Your task to perform on an android device: Do I have any events tomorrow? Image 0: 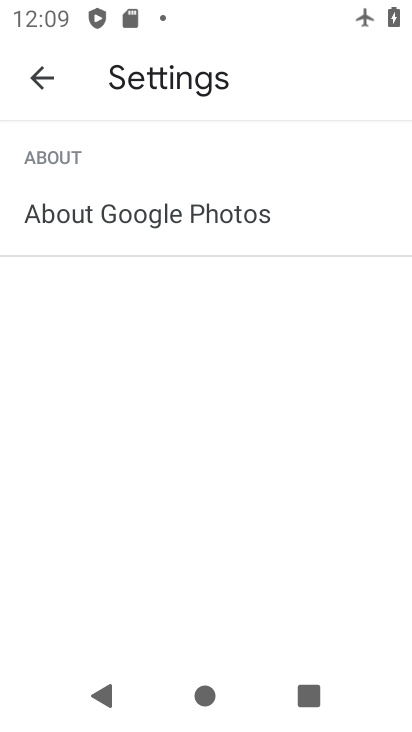
Step 0: press back button
Your task to perform on an android device: Do I have any events tomorrow? Image 1: 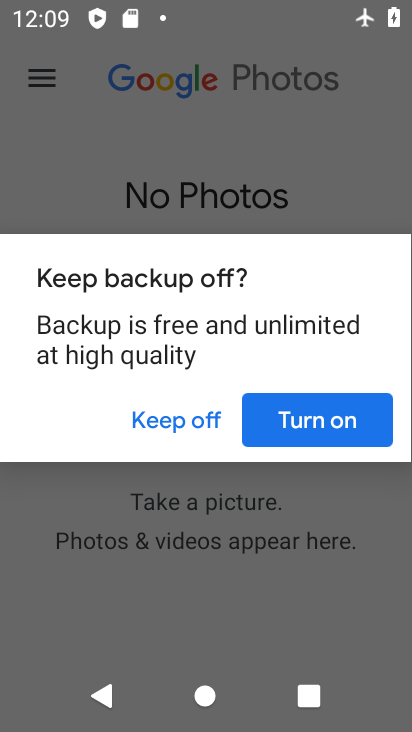
Step 1: press home button
Your task to perform on an android device: Do I have any events tomorrow? Image 2: 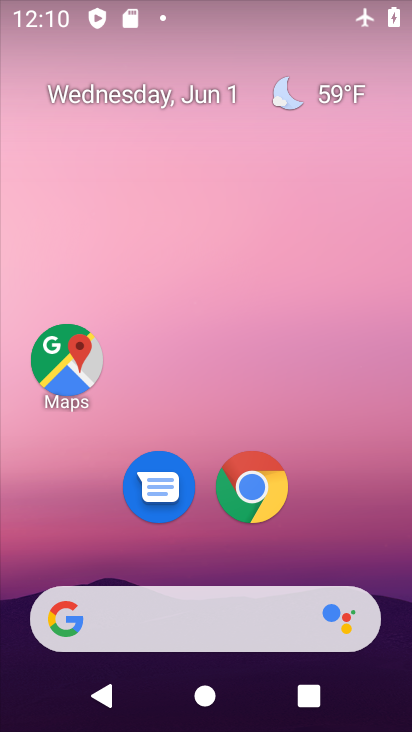
Step 2: drag from (167, 457) to (251, 16)
Your task to perform on an android device: Do I have any events tomorrow? Image 3: 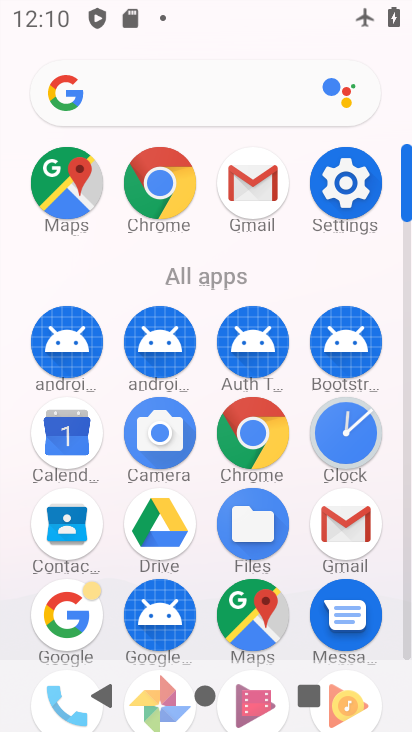
Step 3: drag from (106, 597) to (209, 497)
Your task to perform on an android device: Do I have any events tomorrow? Image 4: 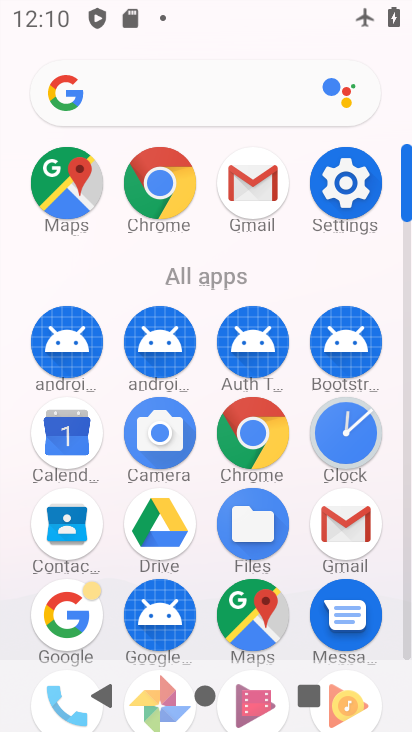
Step 4: click (62, 443)
Your task to perform on an android device: Do I have any events tomorrow? Image 5: 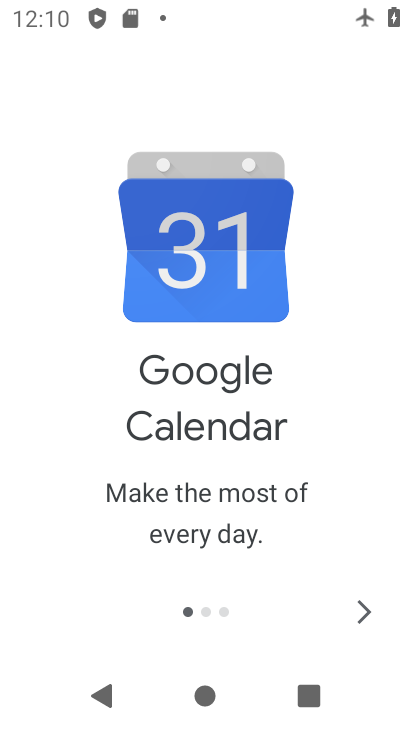
Step 5: click (354, 610)
Your task to perform on an android device: Do I have any events tomorrow? Image 6: 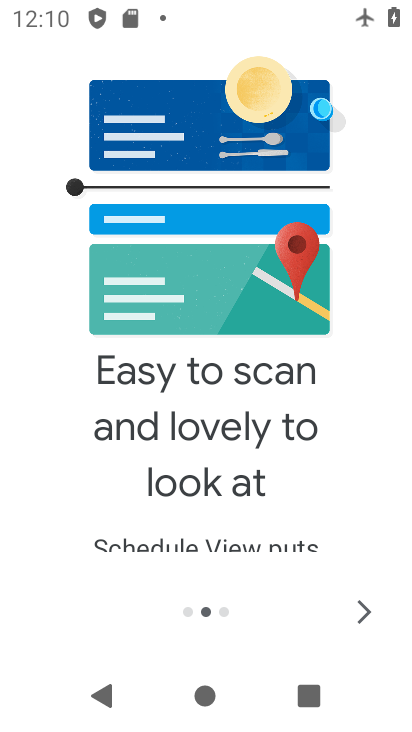
Step 6: click (357, 611)
Your task to perform on an android device: Do I have any events tomorrow? Image 7: 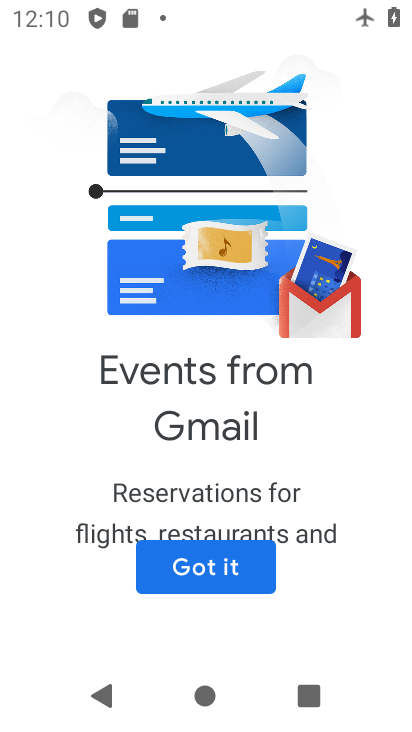
Step 7: click (188, 554)
Your task to perform on an android device: Do I have any events tomorrow? Image 8: 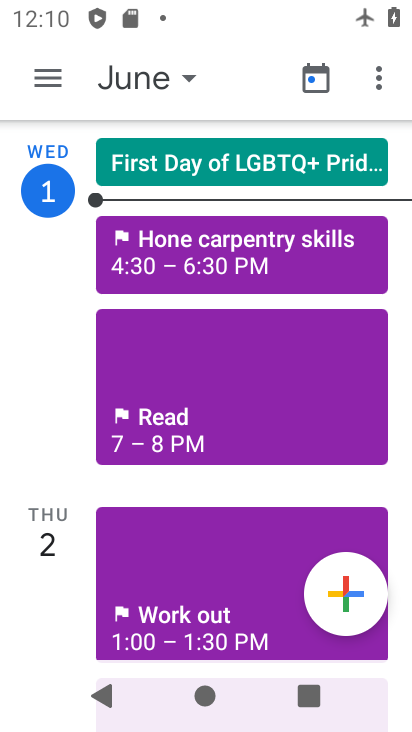
Step 8: drag from (206, 616) to (249, 324)
Your task to perform on an android device: Do I have any events tomorrow? Image 9: 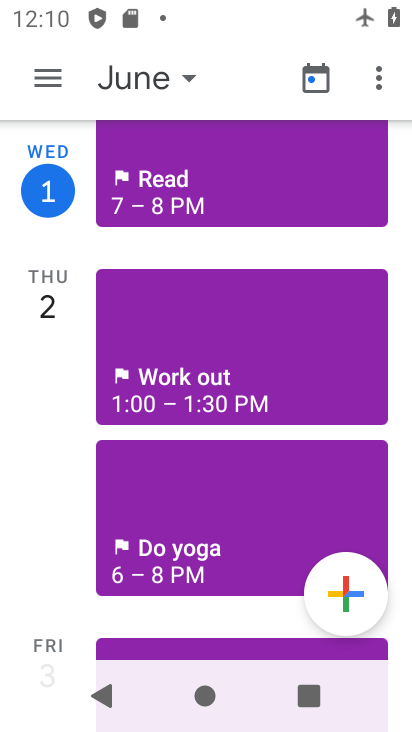
Step 9: click (182, 364)
Your task to perform on an android device: Do I have any events tomorrow? Image 10: 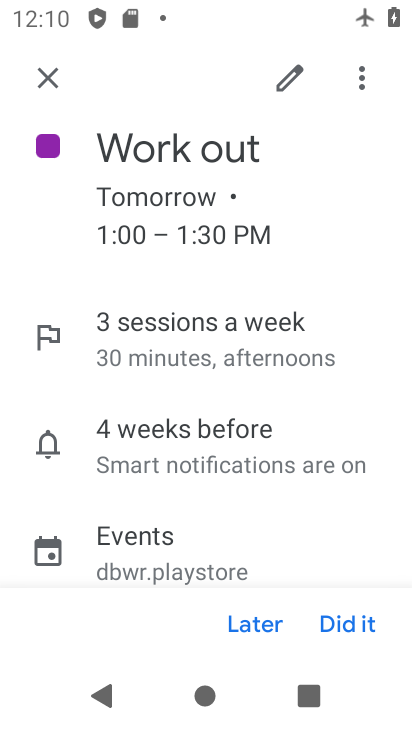
Step 10: task complete